Your task to perform on an android device: Play the last video I watched on Youtube Image 0: 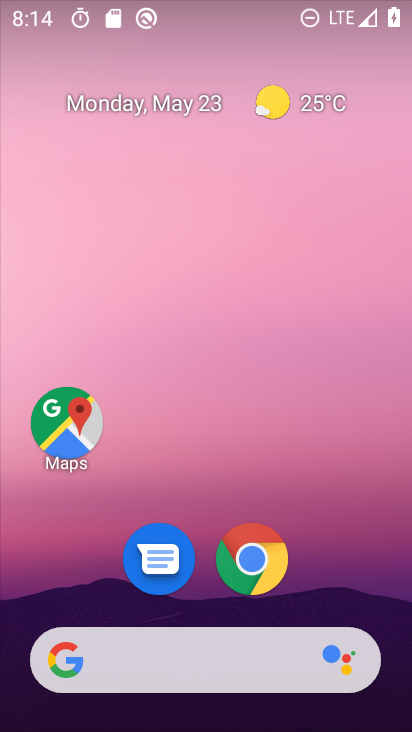
Step 0: drag from (390, 637) to (284, 42)
Your task to perform on an android device: Play the last video I watched on Youtube Image 1: 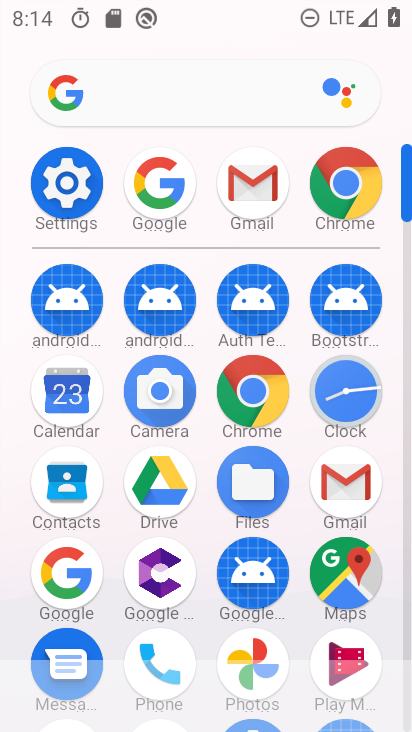
Step 1: drag from (288, 628) to (287, 158)
Your task to perform on an android device: Play the last video I watched on Youtube Image 2: 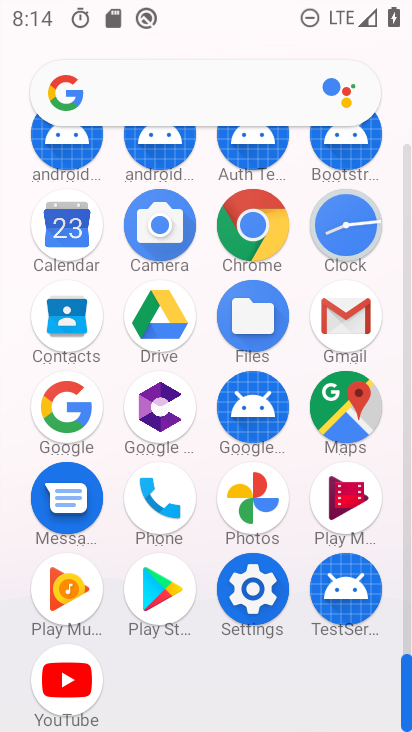
Step 2: click (59, 675)
Your task to perform on an android device: Play the last video I watched on Youtube Image 3: 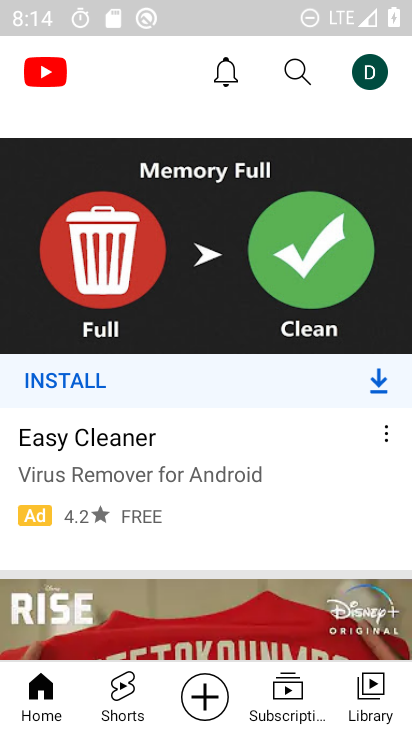
Step 3: task complete